Your task to perform on an android device: Search for pizza restaurants on Maps Image 0: 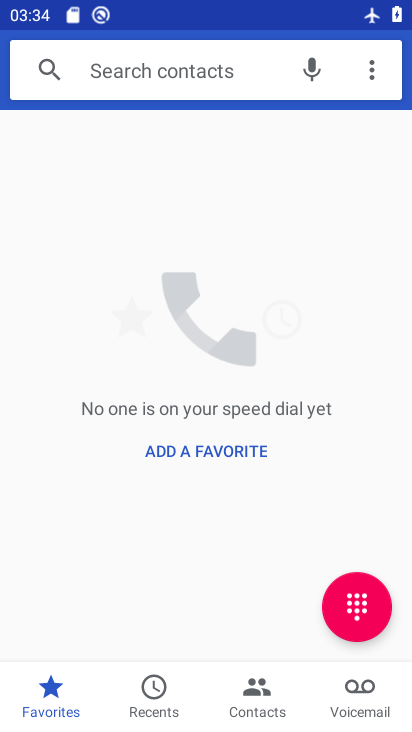
Step 0: drag from (354, 607) to (354, 472)
Your task to perform on an android device: Search for pizza restaurants on Maps Image 1: 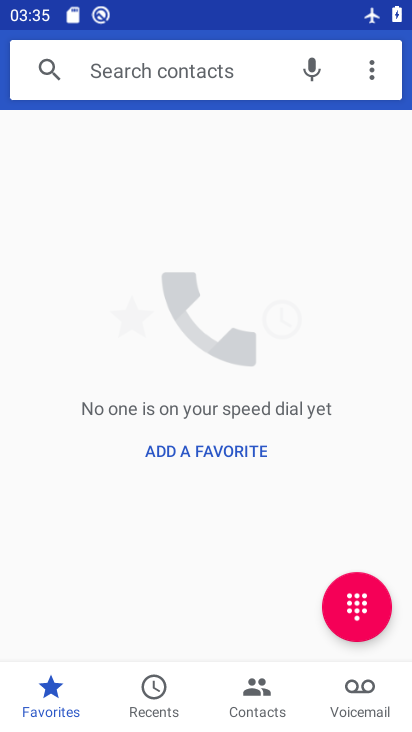
Step 1: press home button
Your task to perform on an android device: Search for pizza restaurants on Maps Image 2: 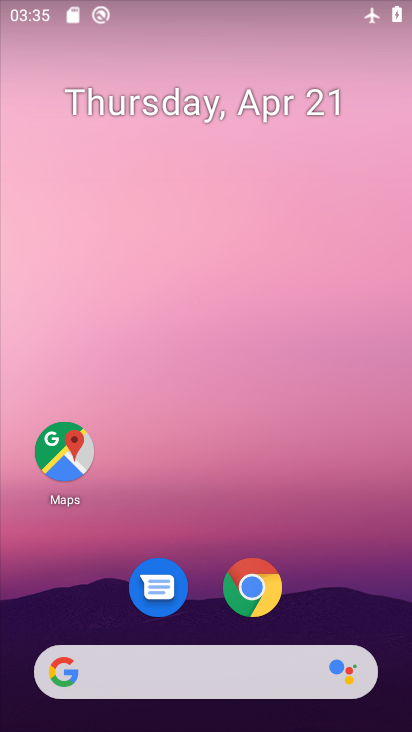
Step 2: drag from (345, 583) to (367, 214)
Your task to perform on an android device: Search for pizza restaurants on Maps Image 3: 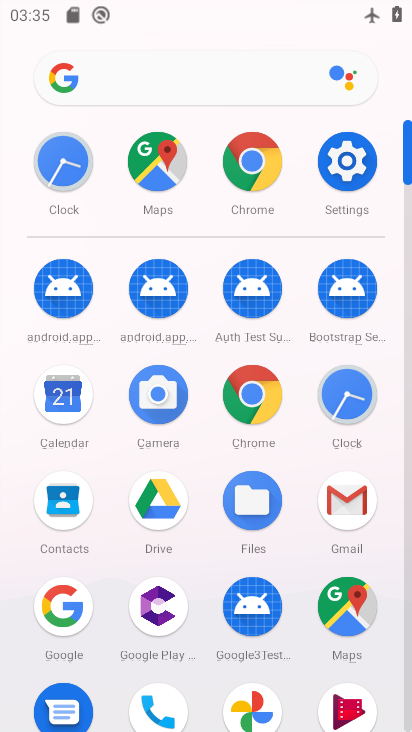
Step 3: click (352, 609)
Your task to perform on an android device: Search for pizza restaurants on Maps Image 4: 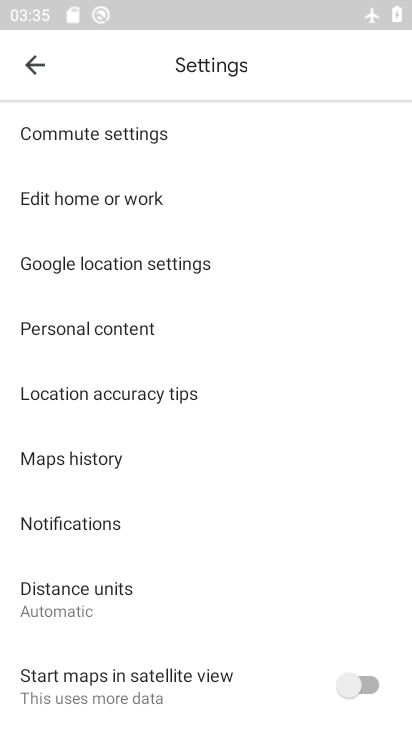
Step 4: click (39, 81)
Your task to perform on an android device: Search for pizza restaurants on Maps Image 5: 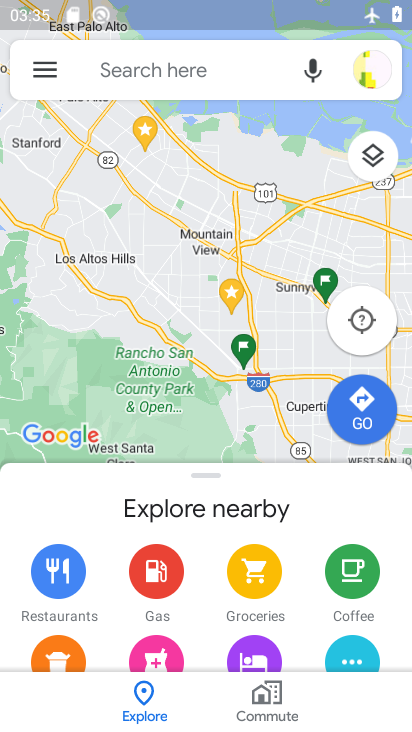
Step 5: click (191, 79)
Your task to perform on an android device: Search for pizza restaurants on Maps Image 6: 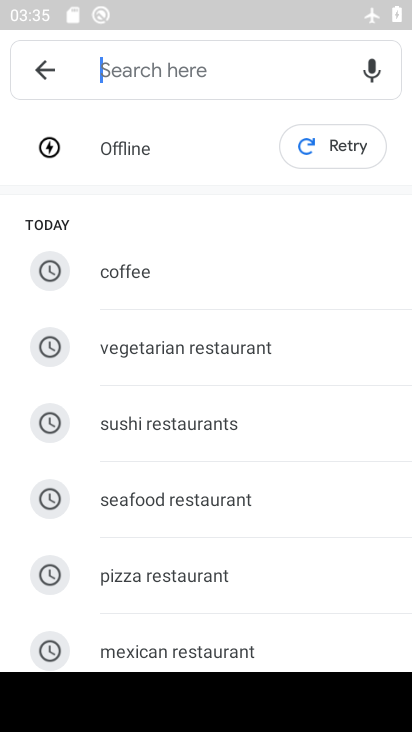
Step 6: type "pizzaa restaurants"
Your task to perform on an android device: Search for pizza restaurants on Maps Image 7: 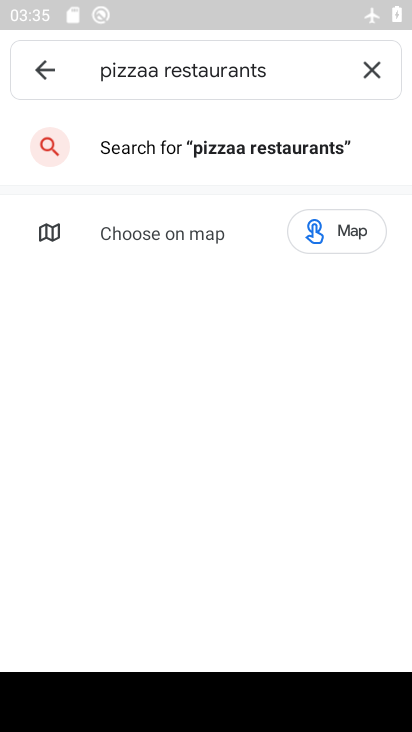
Step 7: click (299, 149)
Your task to perform on an android device: Search for pizza restaurants on Maps Image 8: 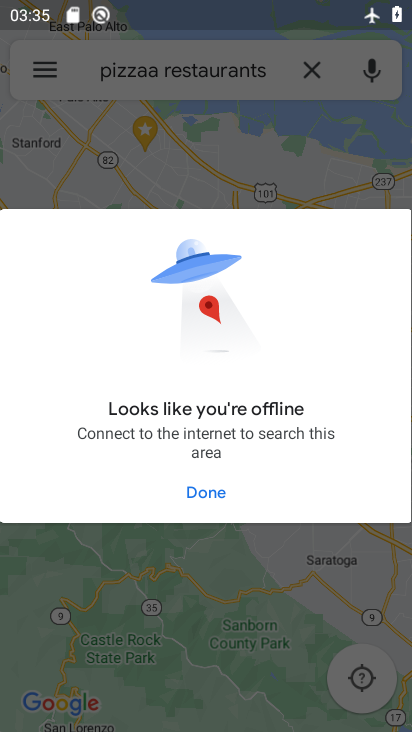
Step 8: task complete